Your task to perform on an android device: toggle improve location accuracy Image 0: 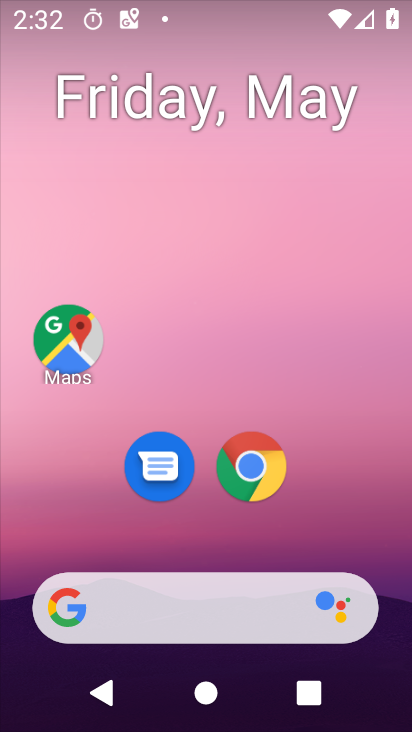
Step 0: drag from (345, 443) to (376, 36)
Your task to perform on an android device: toggle improve location accuracy Image 1: 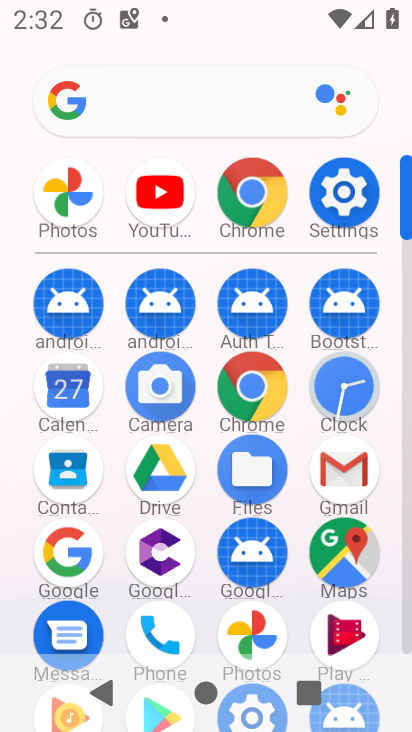
Step 1: click (351, 189)
Your task to perform on an android device: toggle improve location accuracy Image 2: 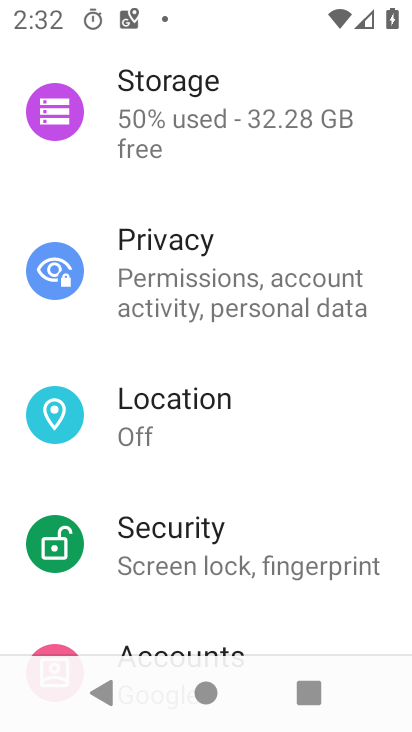
Step 2: drag from (251, 567) to (328, 104)
Your task to perform on an android device: toggle improve location accuracy Image 3: 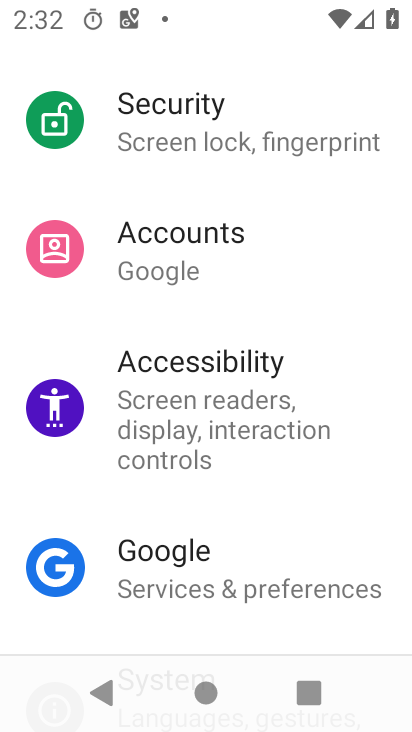
Step 3: drag from (270, 608) to (349, 129)
Your task to perform on an android device: toggle improve location accuracy Image 4: 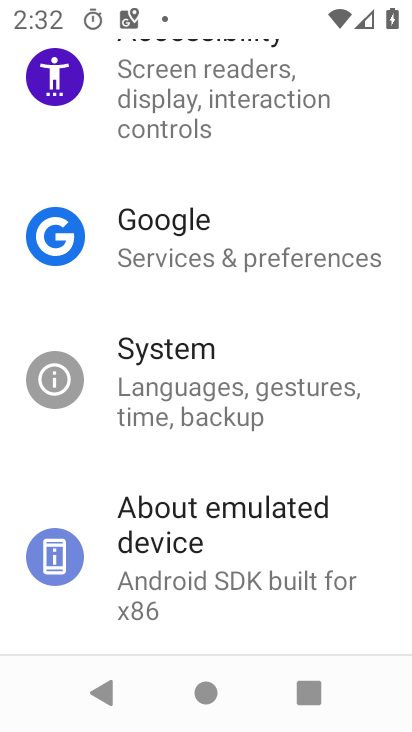
Step 4: drag from (302, 181) to (270, 556)
Your task to perform on an android device: toggle improve location accuracy Image 5: 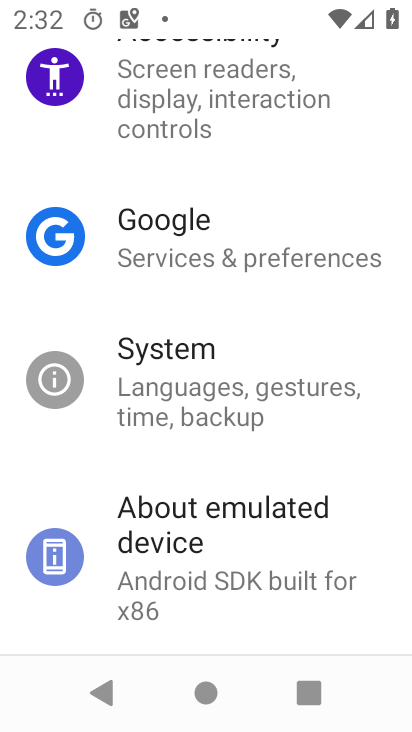
Step 5: drag from (319, 109) to (283, 537)
Your task to perform on an android device: toggle improve location accuracy Image 6: 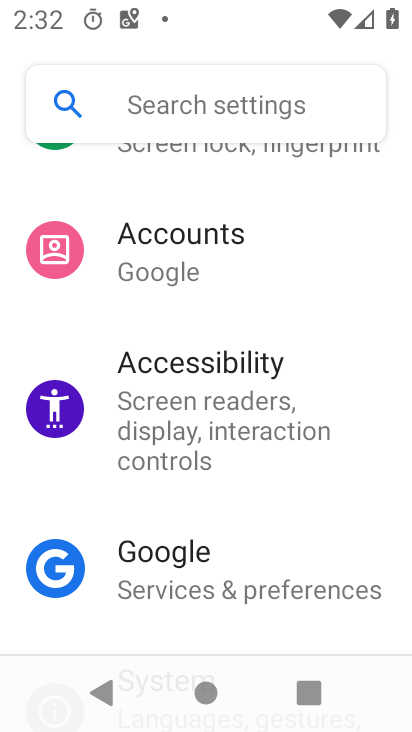
Step 6: drag from (268, 224) to (262, 582)
Your task to perform on an android device: toggle improve location accuracy Image 7: 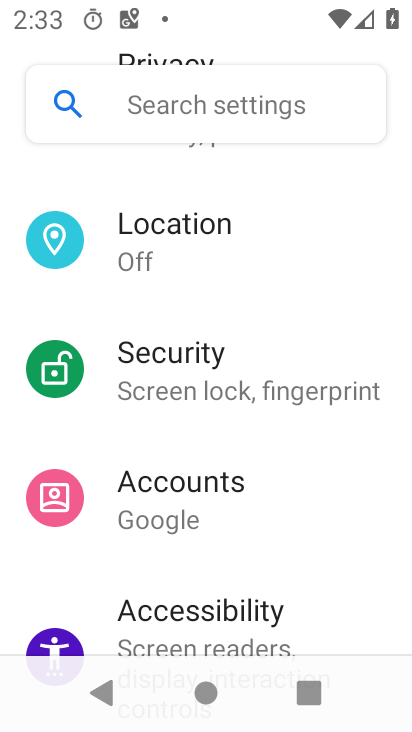
Step 7: drag from (285, 180) to (279, 615)
Your task to perform on an android device: toggle improve location accuracy Image 8: 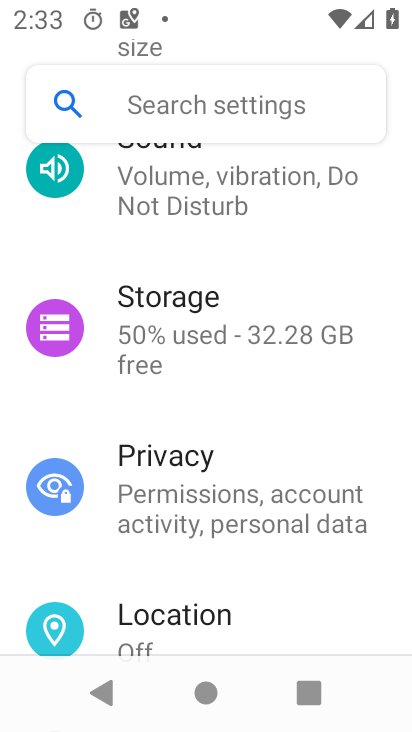
Step 8: drag from (229, 431) to (271, 247)
Your task to perform on an android device: toggle improve location accuracy Image 9: 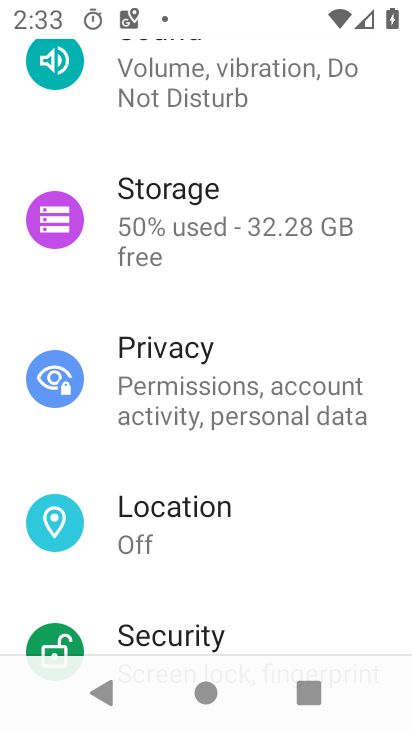
Step 9: click (172, 501)
Your task to perform on an android device: toggle improve location accuracy Image 10: 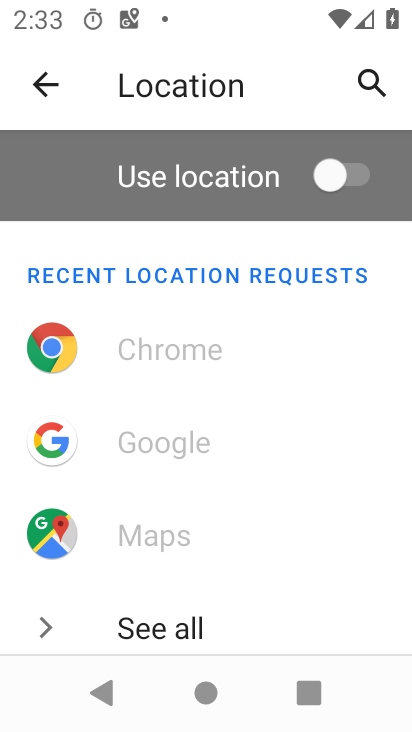
Step 10: drag from (189, 584) to (240, 190)
Your task to perform on an android device: toggle improve location accuracy Image 11: 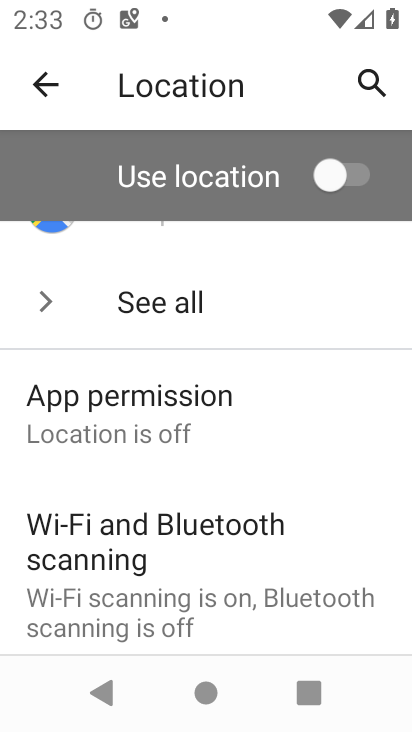
Step 11: drag from (239, 520) to (249, 147)
Your task to perform on an android device: toggle improve location accuracy Image 12: 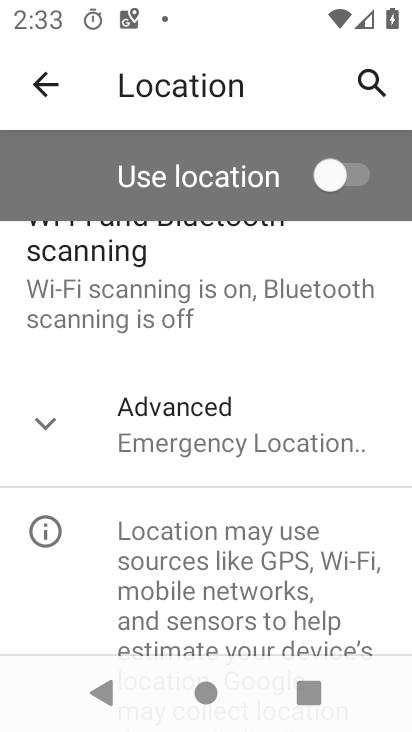
Step 12: click (208, 435)
Your task to perform on an android device: toggle improve location accuracy Image 13: 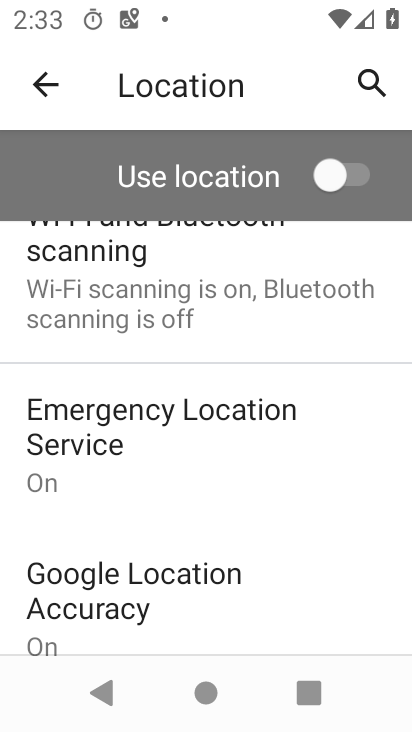
Step 13: drag from (206, 537) to (236, 320)
Your task to perform on an android device: toggle improve location accuracy Image 14: 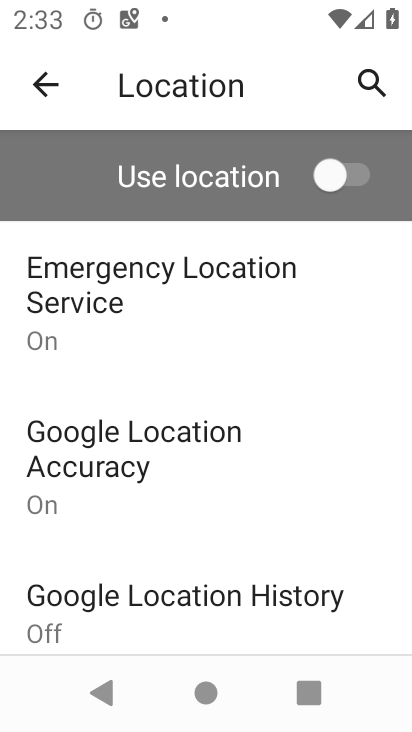
Step 14: click (133, 444)
Your task to perform on an android device: toggle improve location accuracy Image 15: 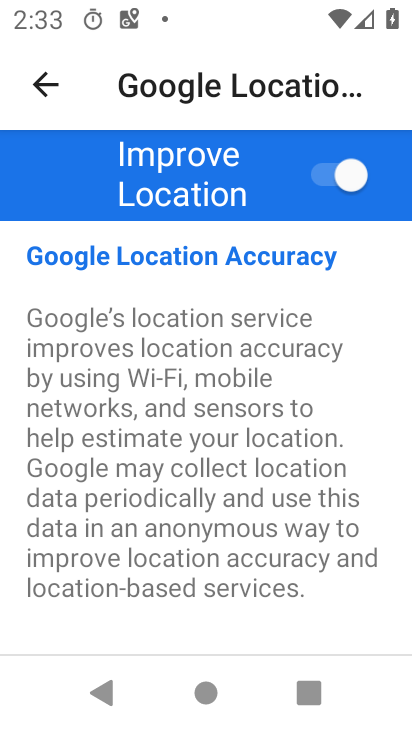
Step 15: drag from (230, 513) to (253, 114)
Your task to perform on an android device: toggle improve location accuracy Image 16: 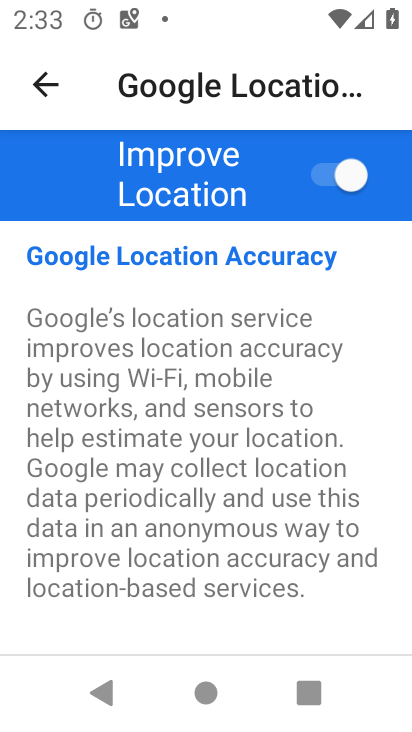
Step 16: drag from (255, 427) to (292, 104)
Your task to perform on an android device: toggle improve location accuracy Image 17: 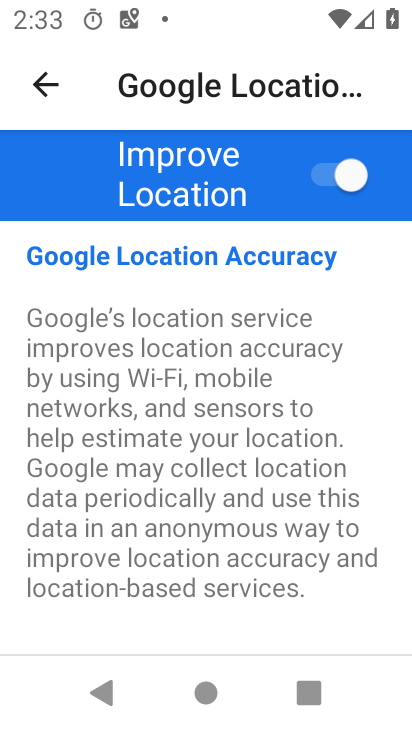
Step 17: click (35, 69)
Your task to perform on an android device: toggle improve location accuracy Image 18: 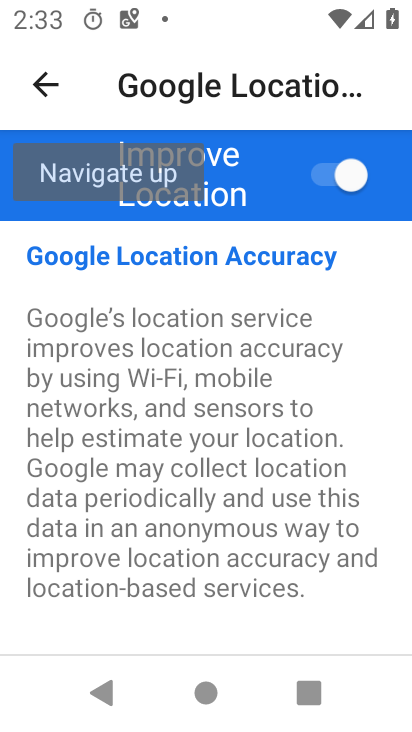
Step 18: click (40, 102)
Your task to perform on an android device: toggle improve location accuracy Image 19: 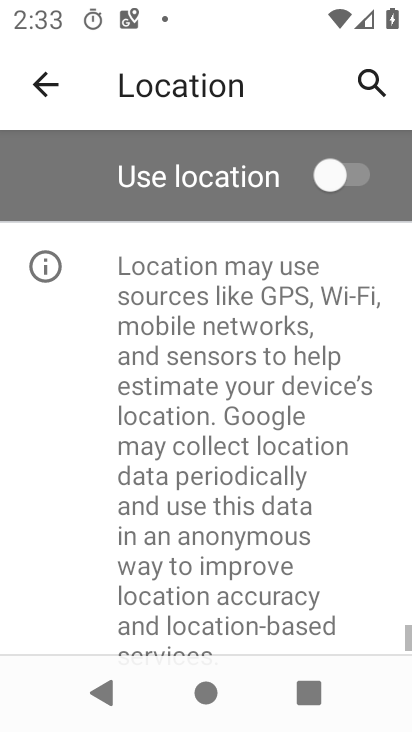
Step 19: drag from (238, 532) to (330, 84)
Your task to perform on an android device: toggle improve location accuracy Image 20: 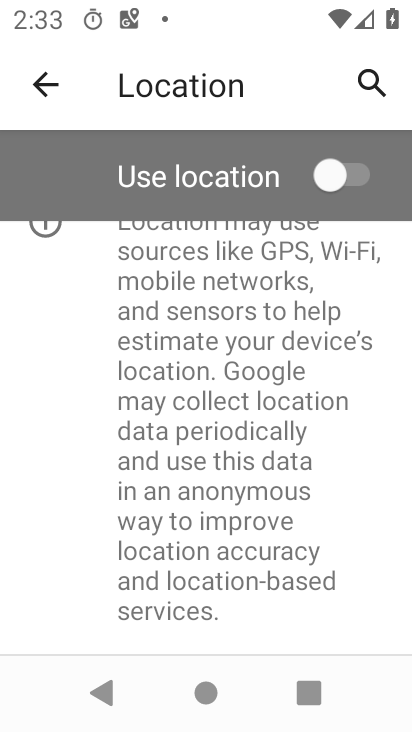
Step 20: drag from (254, 479) to (292, 127)
Your task to perform on an android device: toggle improve location accuracy Image 21: 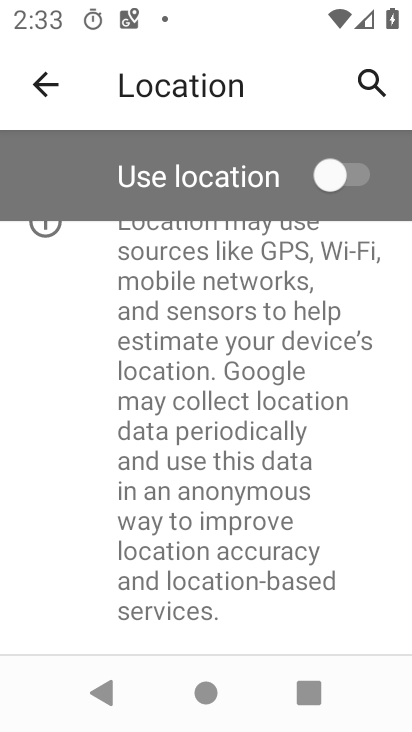
Step 21: click (24, 98)
Your task to perform on an android device: toggle improve location accuracy Image 22: 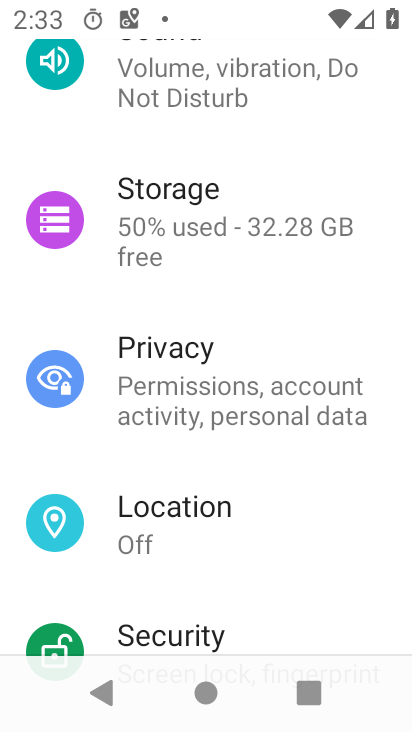
Step 22: click (208, 526)
Your task to perform on an android device: toggle improve location accuracy Image 23: 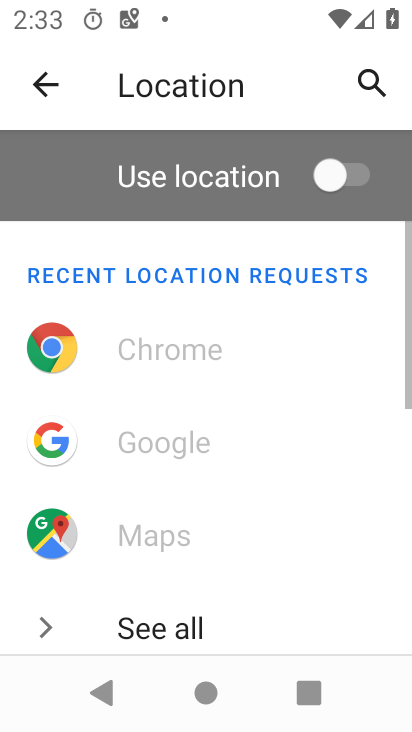
Step 23: drag from (207, 547) to (288, 86)
Your task to perform on an android device: toggle improve location accuracy Image 24: 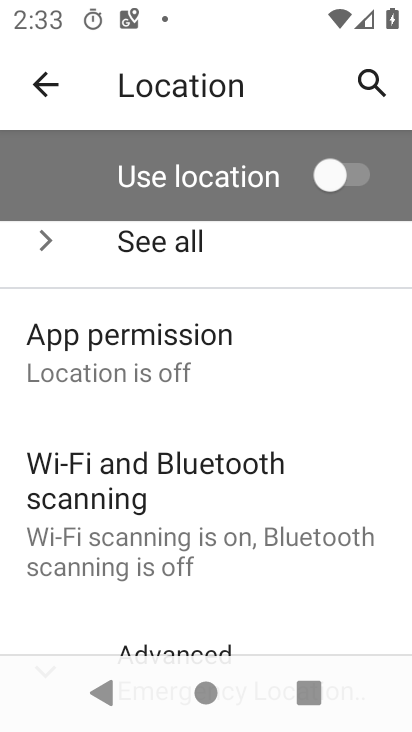
Step 24: drag from (259, 554) to (377, 36)
Your task to perform on an android device: toggle improve location accuracy Image 25: 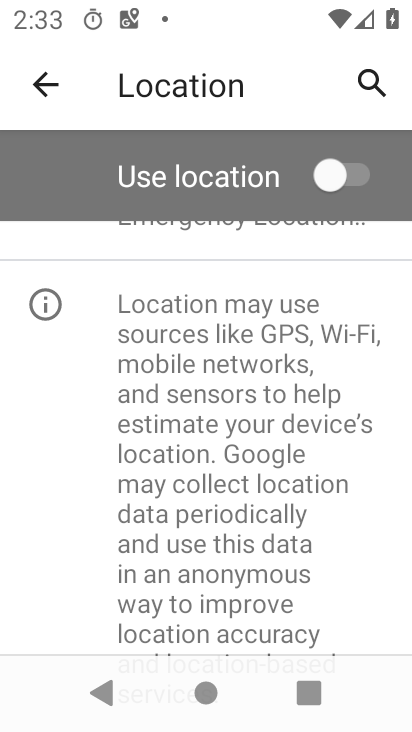
Step 25: drag from (294, 301) to (272, 651)
Your task to perform on an android device: toggle improve location accuracy Image 26: 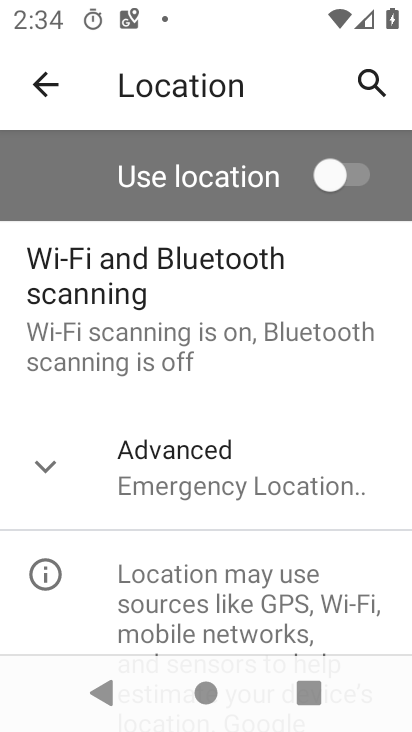
Step 26: click (220, 500)
Your task to perform on an android device: toggle improve location accuracy Image 27: 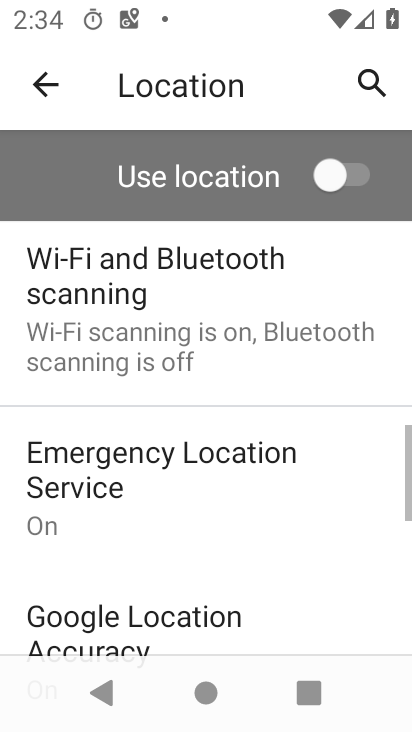
Step 27: drag from (241, 573) to (320, 223)
Your task to perform on an android device: toggle improve location accuracy Image 28: 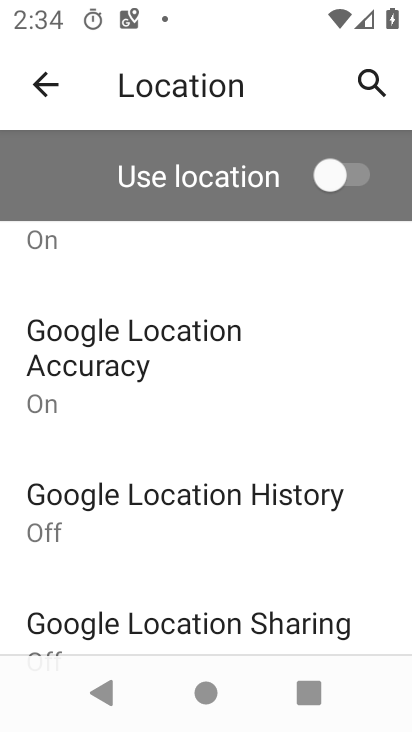
Step 28: click (68, 368)
Your task to perform on an android device: toggle improve location accuracy Image 29: 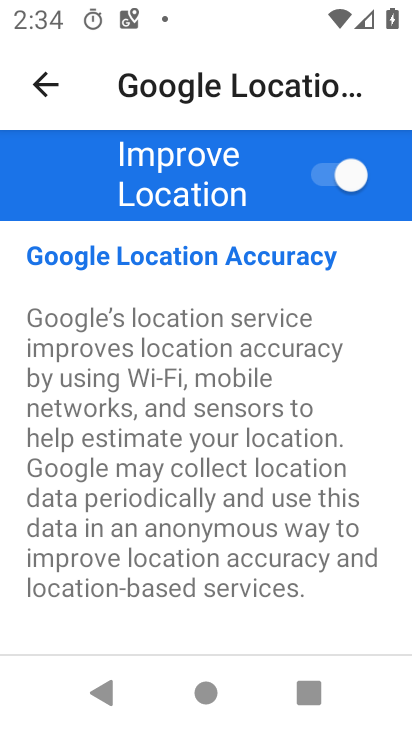
Step 29: task complete